Your task to perform on an android device: Open Yahoo.com Image 0: 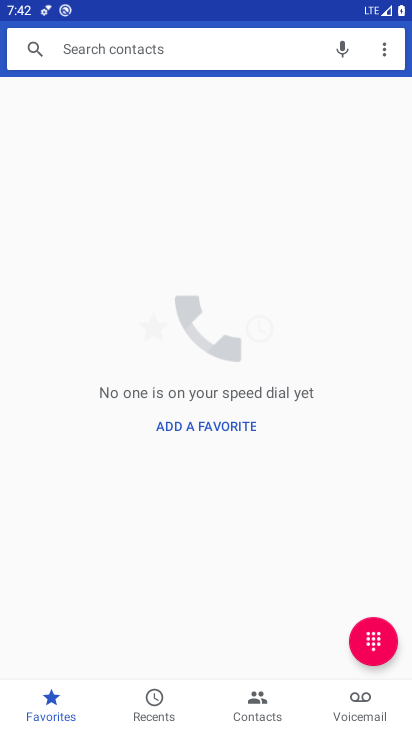
Step 0: press home button
Your task to perform on an android device: Open Yahoo.com Image 1: 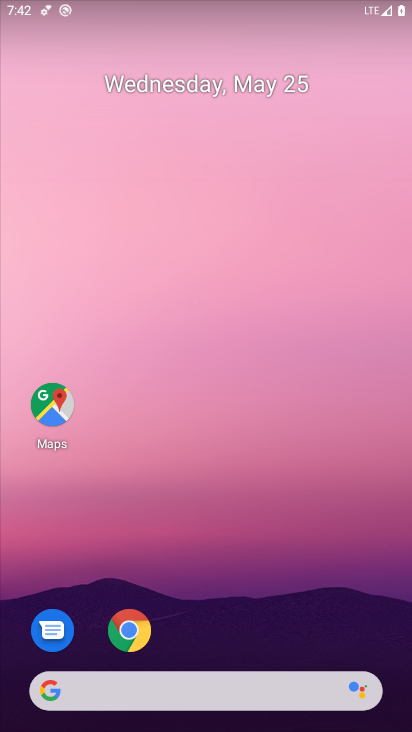
Step 1: click (118, 637)
Your task to perform on an android device: Open Yahoo.com Image 2: 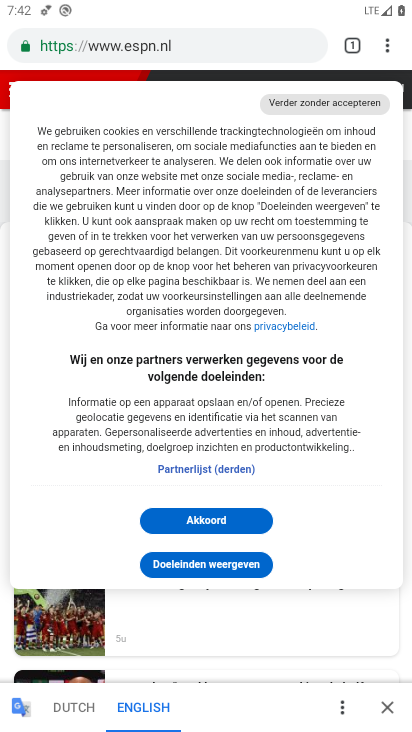
Step 2: click (358, 44)
Your task to perform on an android device: Open Yahoo.com Image 3: 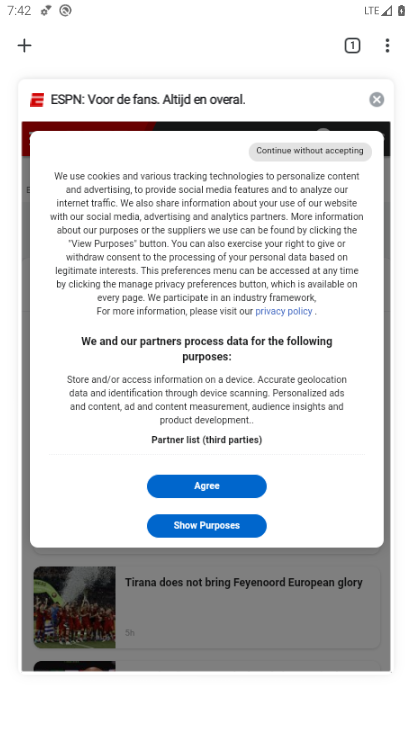
Step 3: click (380, 102)
Your task to perform on an android device: Open Yahoo.com Image 4: 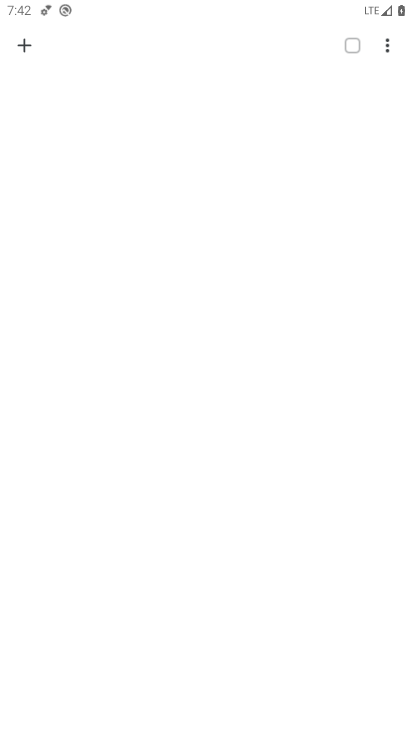
Step 4: click (23, 40)
Your task to perform on an android device: Open Yahoo.com Image 5: 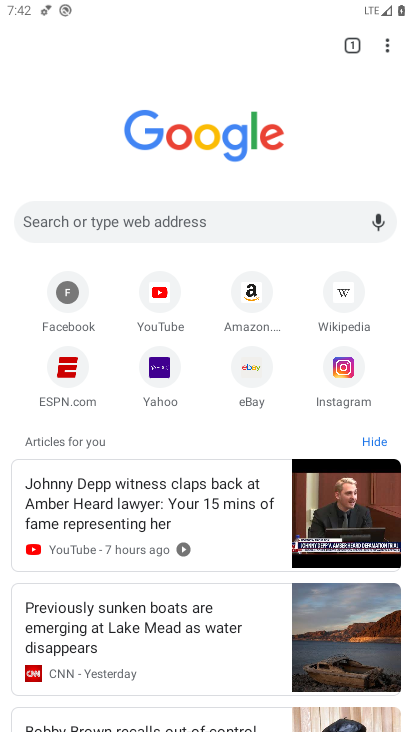
Step 5: click (153, 372)
Your task to perform on an android device: Open Yahoo.com Image 6: 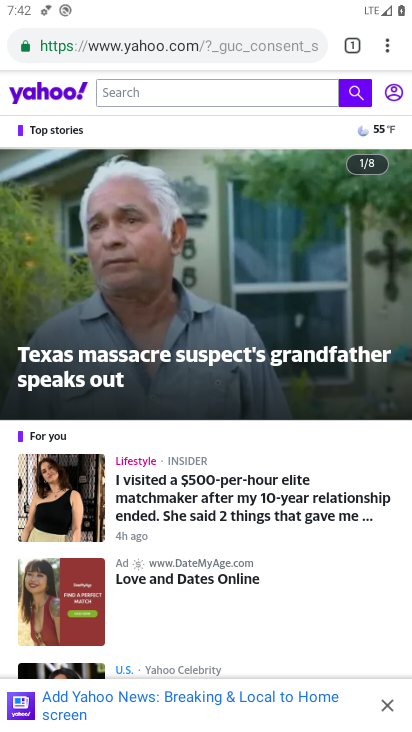
Step 6: task complete